Your task to perform on an android device: See recent photos Image 0: 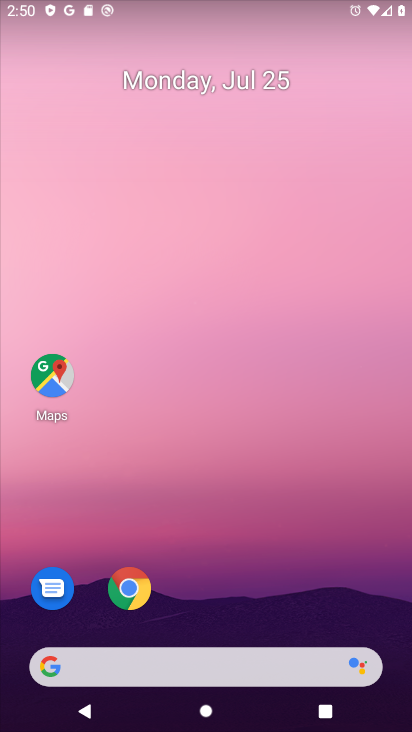
Step 0: drag from (211, 631) to (209, 98)
Your task to perform on an android device: See recent photos Image 1: 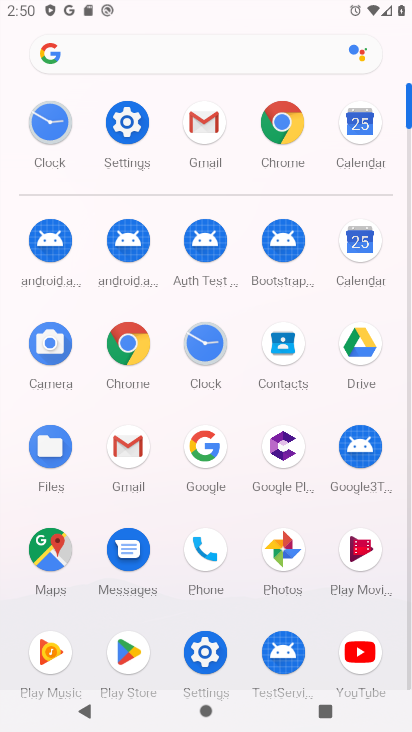
Step 1: click (281, 545)
Your task to perform on an android device: See recent photos Image 2: 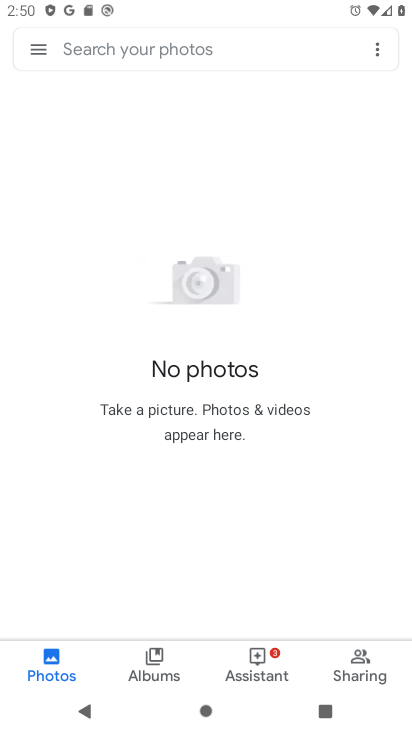
Step 2: task complete